Your task to perform on an android device: Open settings on Google Maps Image 0: 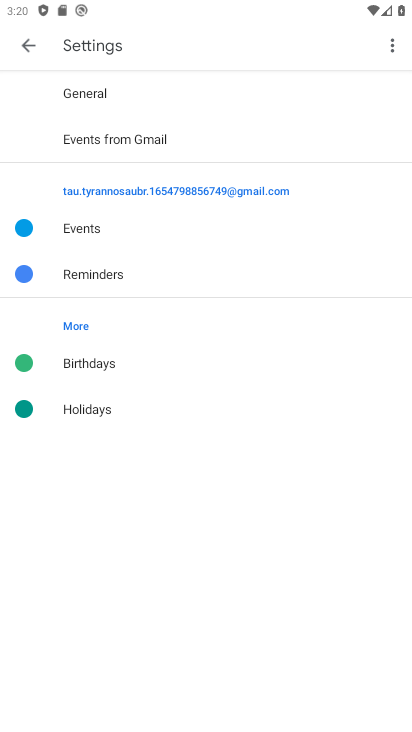
Step 0: press home button
Your task to perform on an android device: Open settings on Google Maps Image 1: 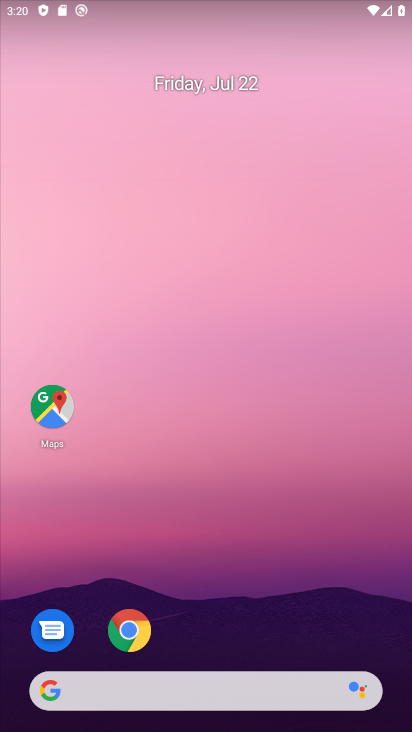
Step 1: drag from (177, 656) to (287, 0)
Your task to perform on an android device: Open settings on Google Maps Image 2: 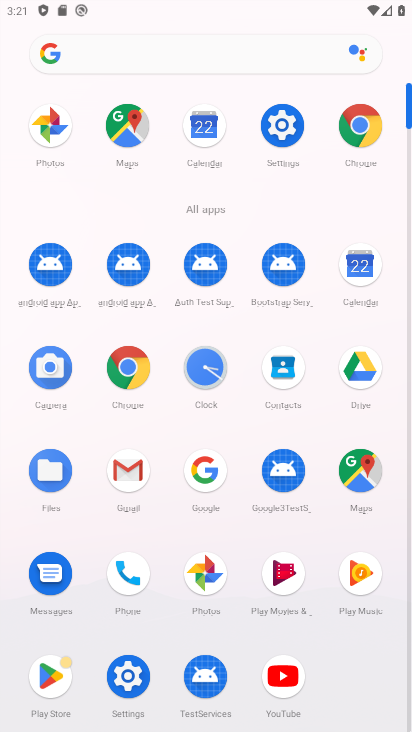
Step 2: click (358, 465)
Your task to perform on an android device: Open settings on Google Maps Image 3: 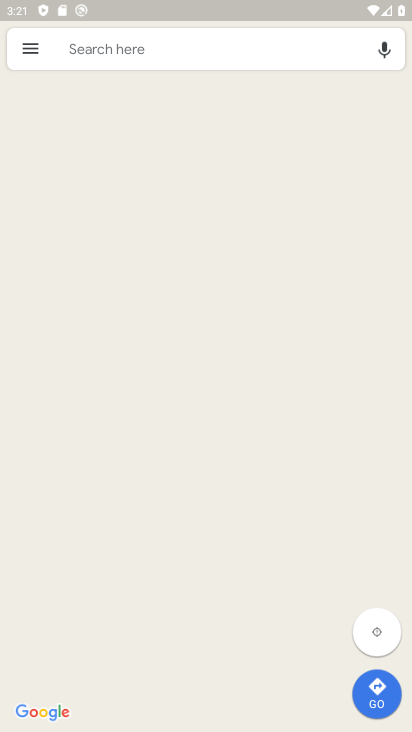
Step 3: click (34, 46)
Your task to perform on an android device: Open settings on Google Maps Image 4: 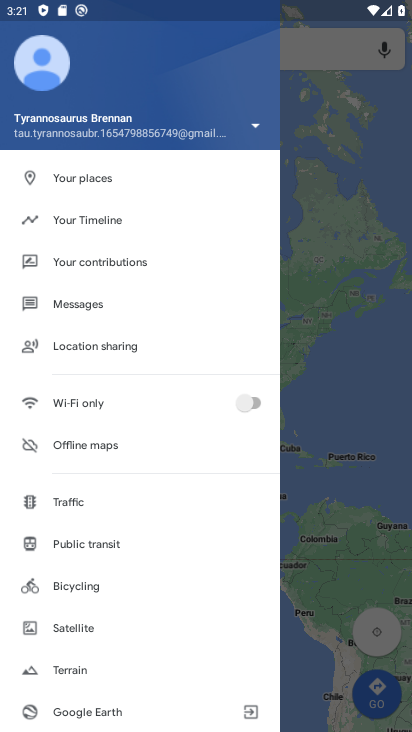
Step 4: drag from (90, 660) to (104, 241)
Your task to perform on an android device: Open settings on Google Maps Image 5: 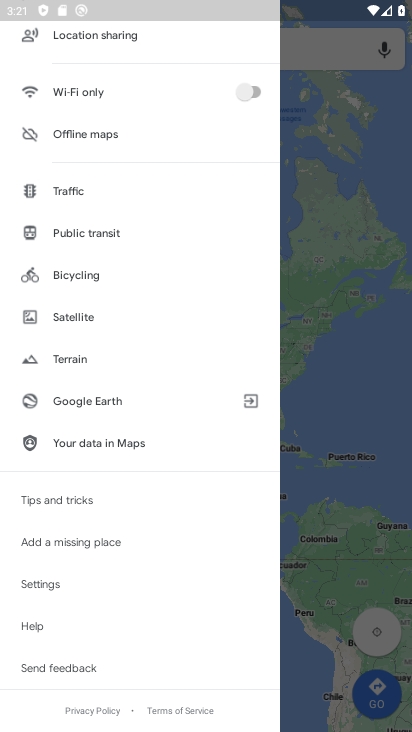
Step 5: click (46, 583)
Your task to perform on an android device: Open settings on Google Maps Image 6: 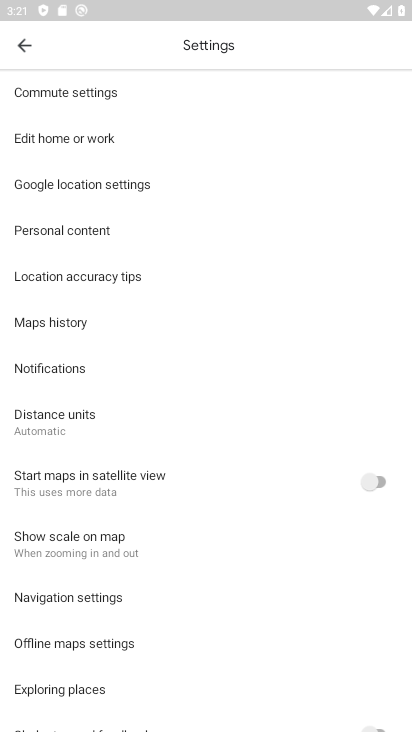
Step 6: task complete